Your task to perform on an android device: Go to internet settings Image 0: 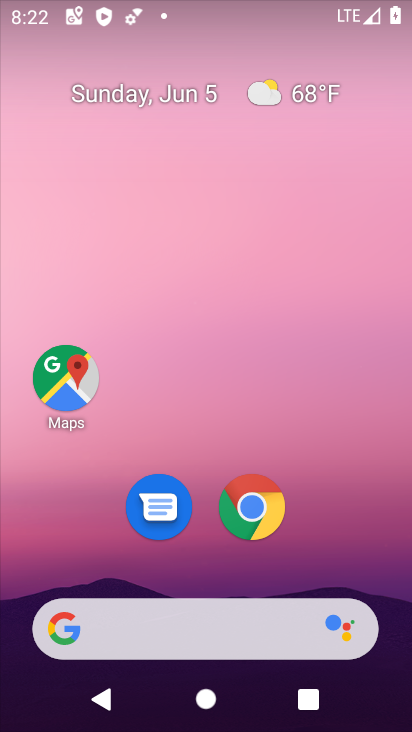
Step 0: drag from (228, 568) to (270, 162)
Your task to perform on an android device: Go to internet settings Image 1: 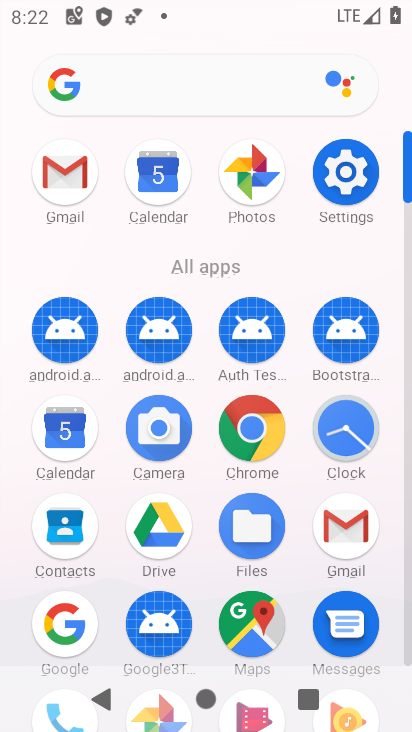
Step 1: click (352, 204)
Your task to perform on an android device: Go to internet settings Image 2: 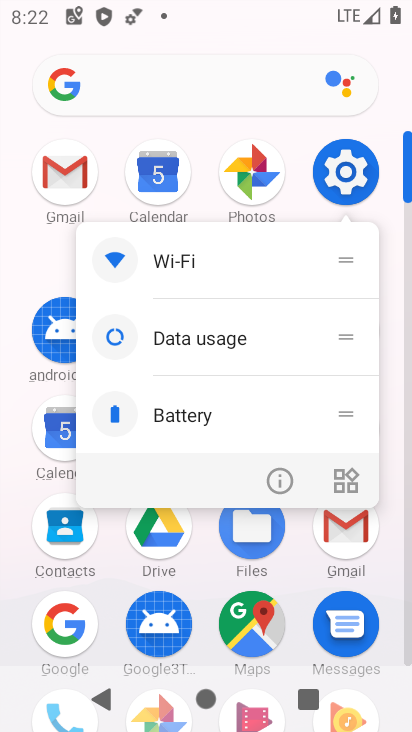
Step 2: click (348, 197)
Your task to perform on an android device: Go to internet settings Image 3: 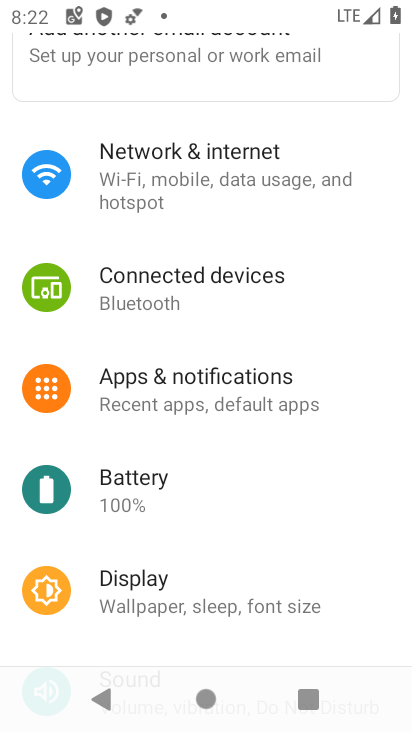
Step 3: click (248, 186)
Your task to perform on an android device: Go to internet settings Image 4: 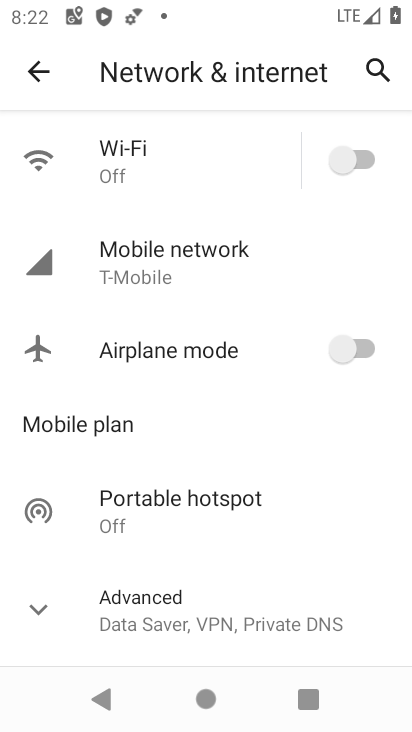
Step 4: drag from (233, 417) to (226, 208)
Your task to perform on an android device: Go to internet settings Image 5: 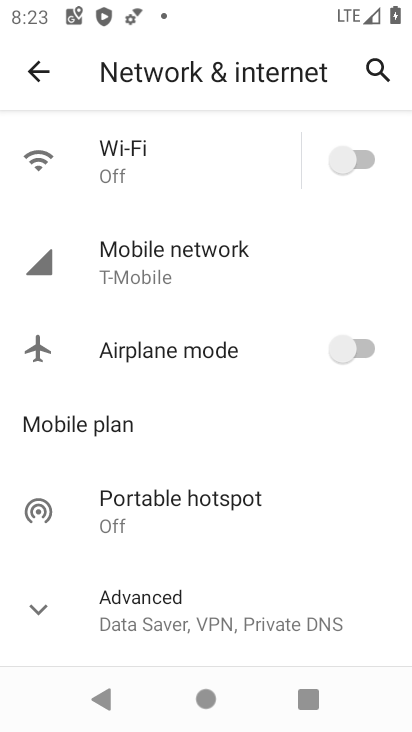
Step 5: click (35, 617)
Your task to perform on an android device: Go to internet settings Image 6: 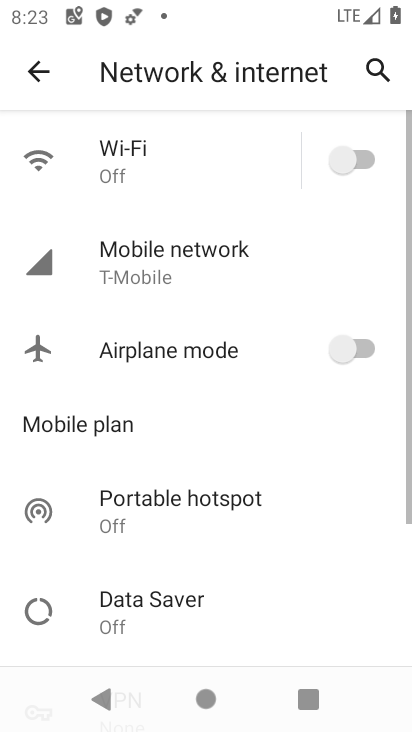
Step 6: task complete